Your task to perform on an android device: What's the weather going to be this weekend? Image 0: 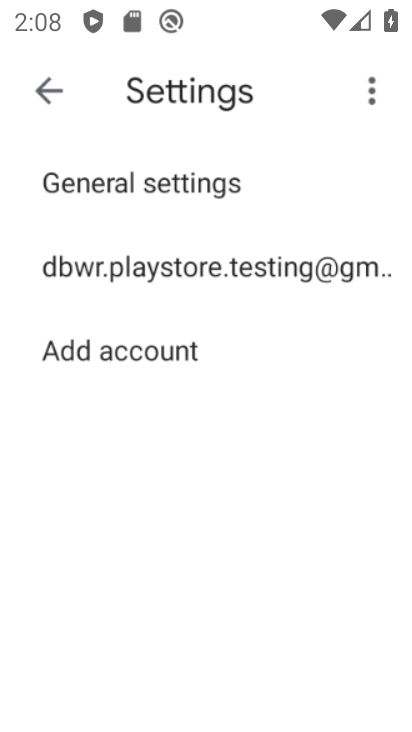
Step 0: drag from (282, 717) to (234, 153)
Your task to perform on an android device: What's the weather going to be this weekend? Image 1: 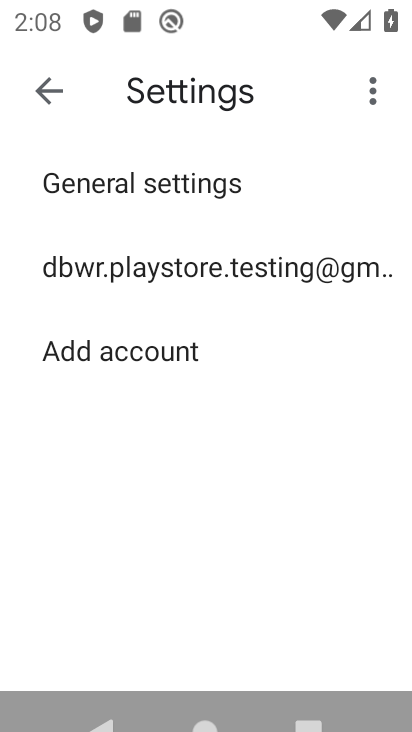
Step 1: press home button
Your task to perform on an android device: What's the weather going to be this weekend? Image 2: 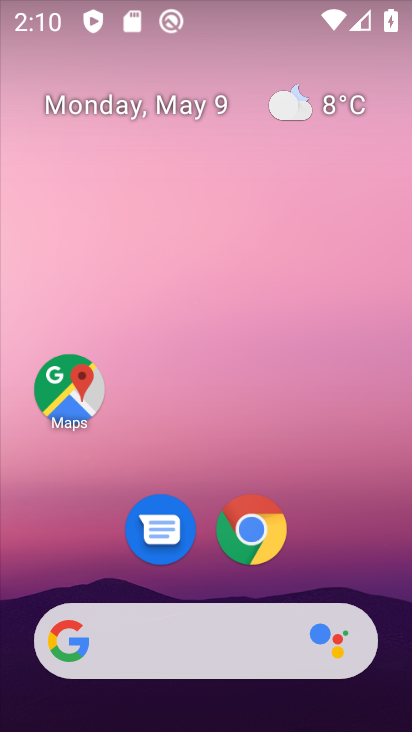
Step 2: click (58, 727)
Your task to perform on an android device: What's the weather going to be this weekend? Image 3: 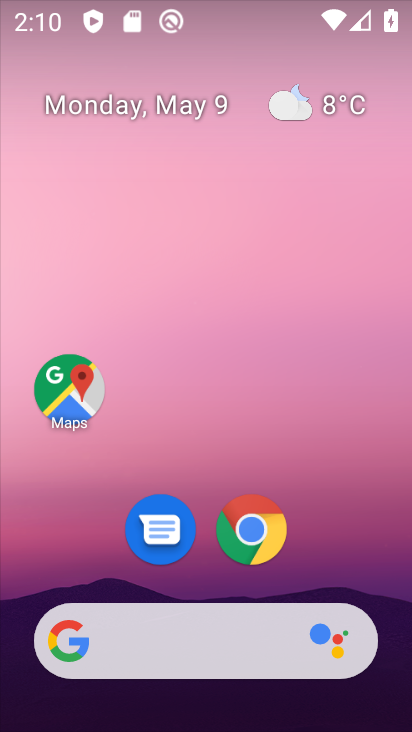
Step 3: click (237, 650)
Your task to perform on an android device: What's the weather going to be this weekend? Image 4: 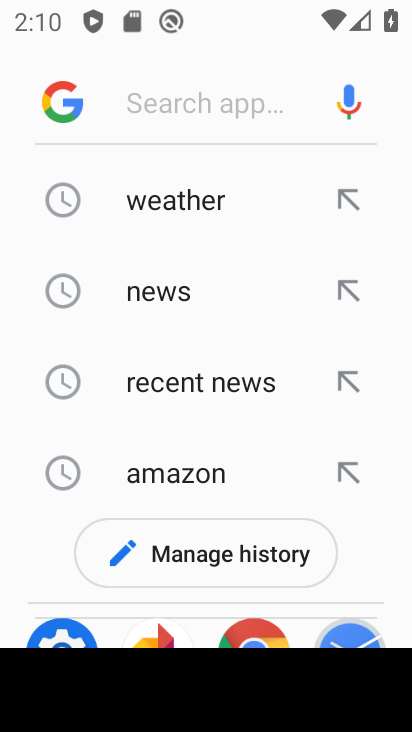
Step 4: type " What's the weather going to be this weekend?"
Your task to perform on an android device: What's the weather going to be this weekend? Image 5: 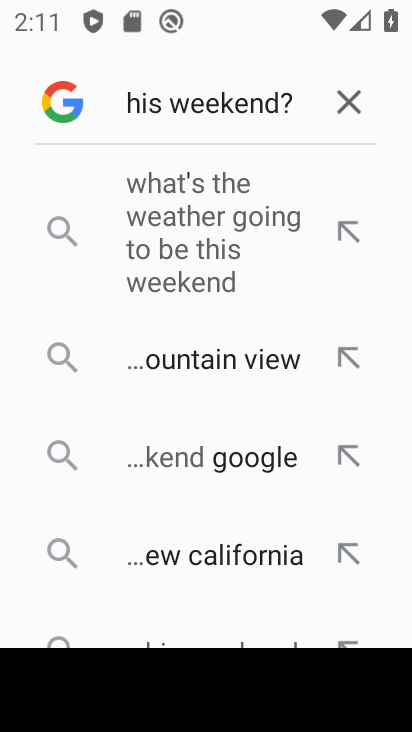
Step 5: click (184, 176)
Your task to perform on an android device: What's the weather going to be this weekend? Image 6: 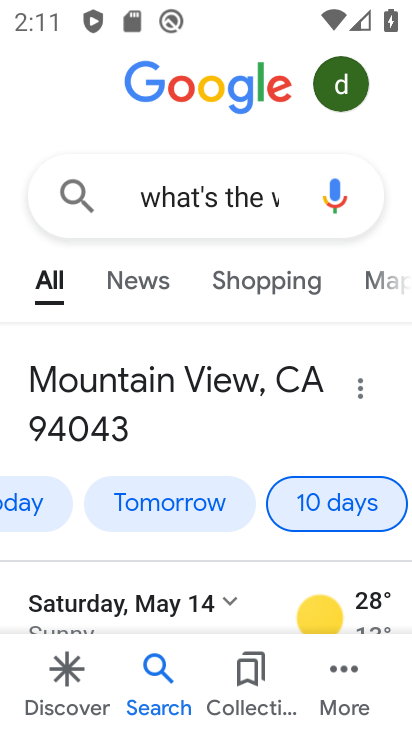
Step 6: task complete